Your task to perform on an android device: Show me recent news Image 0: 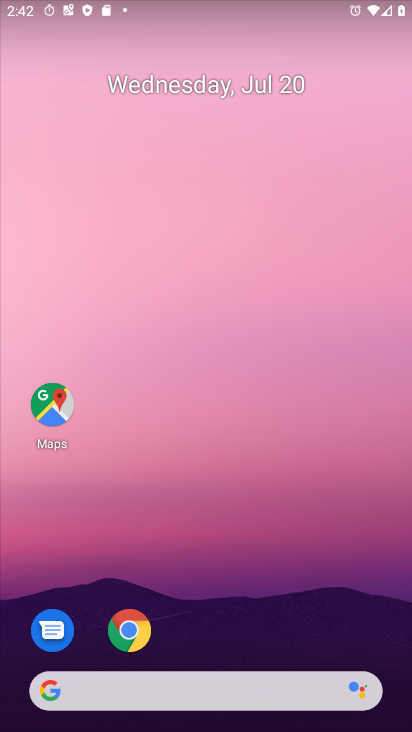
Step 0: click (149, 681)
Your task to perform on an android device: Show me recent news Image 1: 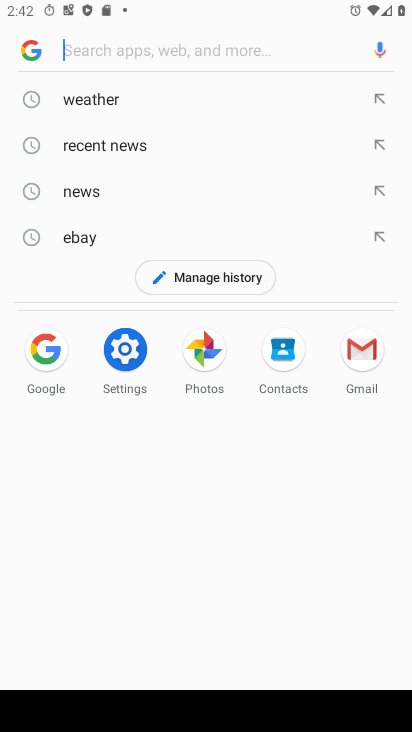
Step 1: click (121, 146)
Your task to perform on an android device: Show me recent news Image 2: 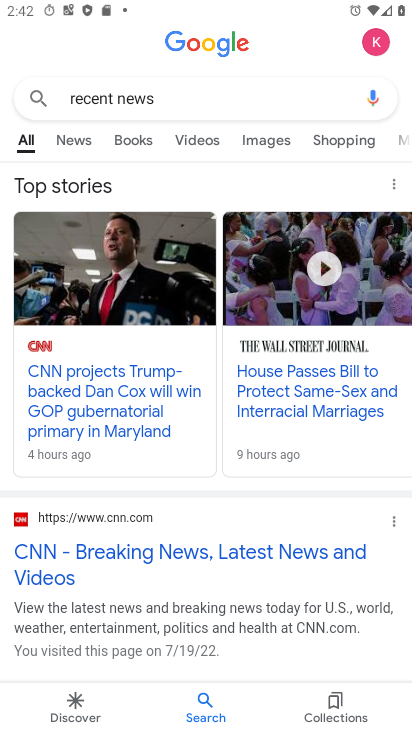
Step 2: click (83, 139)
Your task to perform on an android device: Show me recent news Image 3: 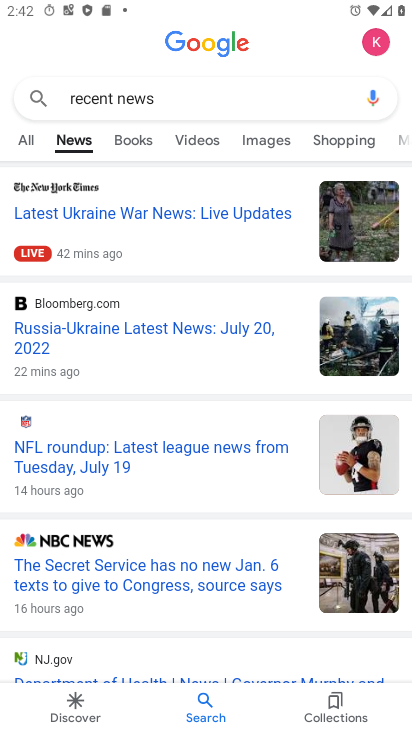
Step 3: task complete